Your task to perform on an android device: check storage Image 0: 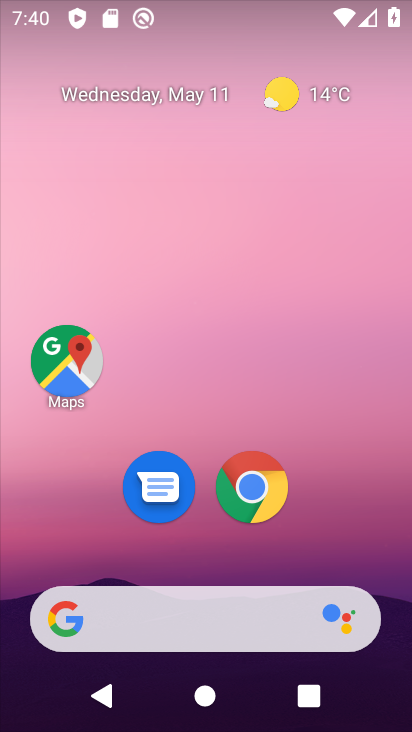
Step 0: drag from (198, 544) to (211, 108)
Your task to perform on an android device: check storage Image 1: 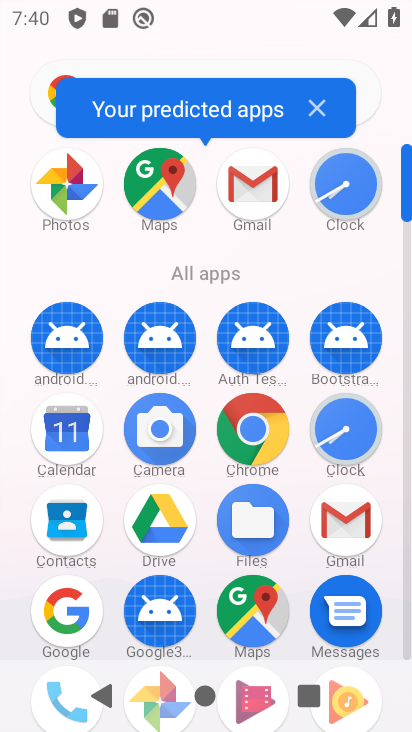
Step 1: drag from (203, 640) to (203, 220)
Your task to perform on an android device: check storage Image 2: 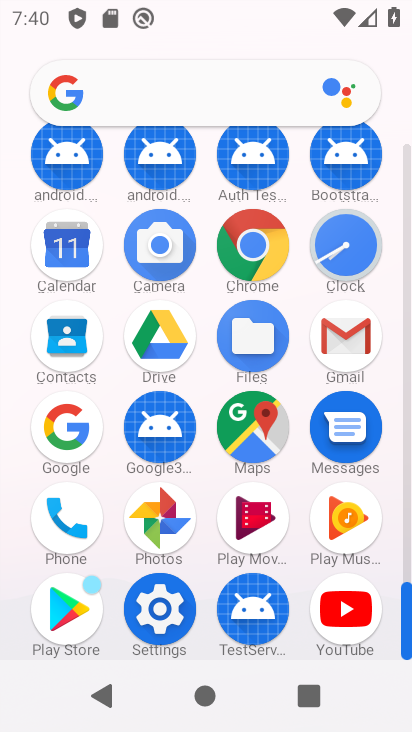
Step 2: click (169, 609)
Your task to perform on an android device: check storage Image 3: 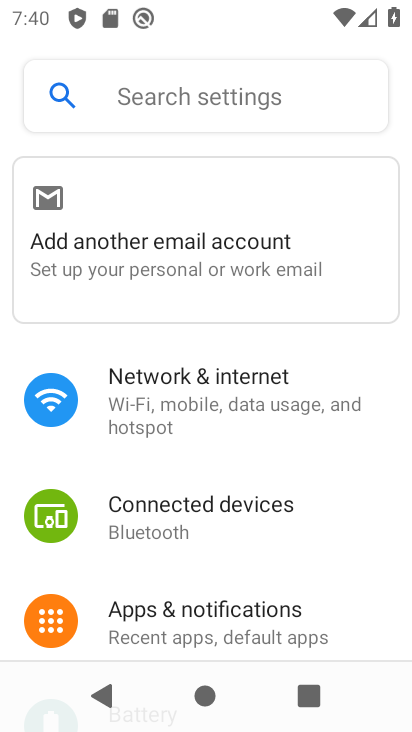
Step 3: drag from (199, 632) to (189, 458)
Your task to perform on an android device: check storage Image 4: 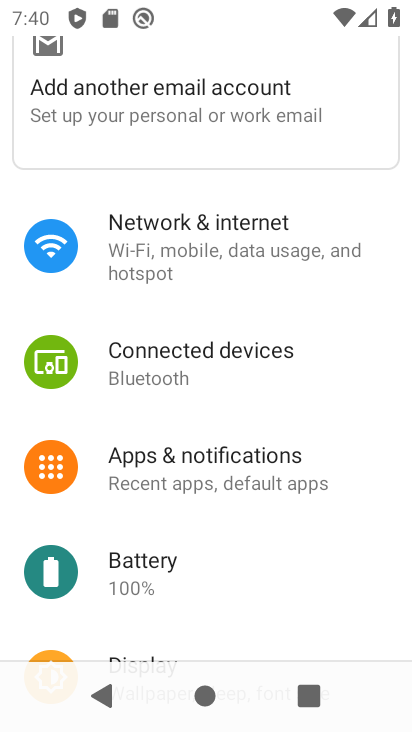
Step 4: drag from (175, 654) to (215, 294)
Your task to perform on an android device: check storage Image 5: 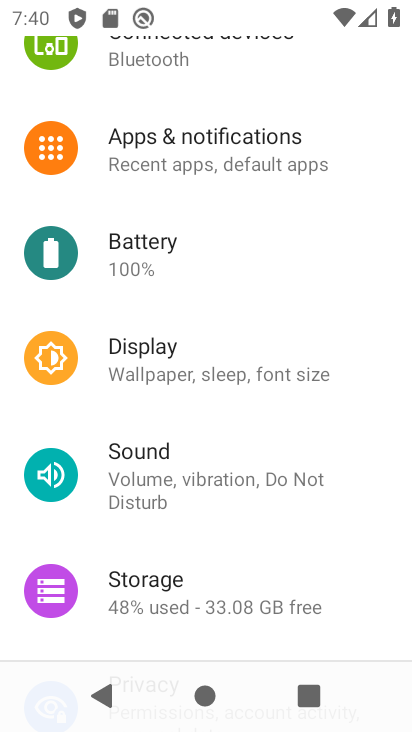
Step 5: click (194, 586)
Your task to perform on an android device: check storage Image 6: 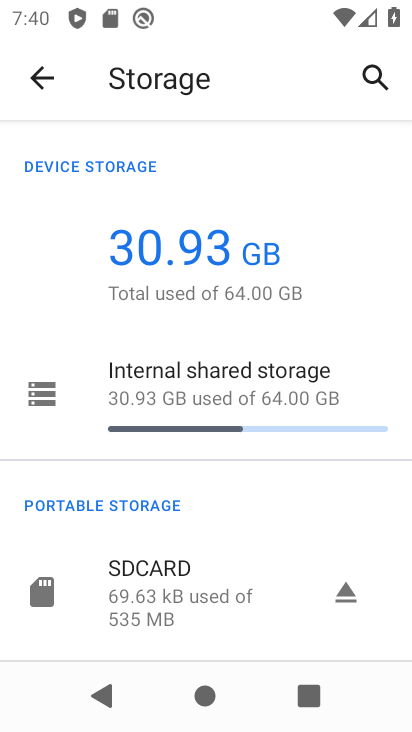
Step 6: task complete